Your task to perform on an android device: open chrome and create a bookmark for the current page Image 0: 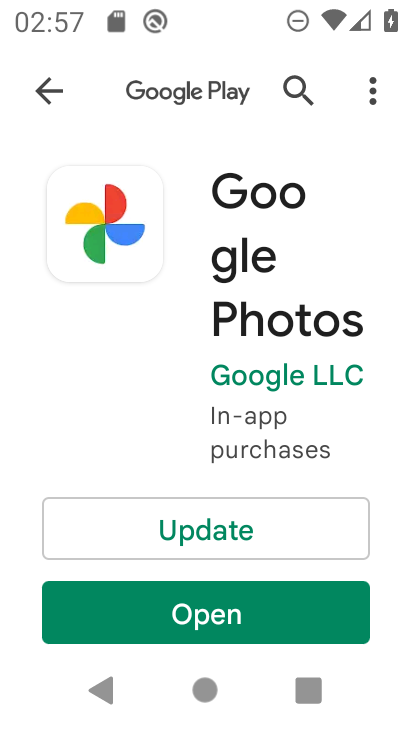
Step 0: press home button
Your task to perform on an android device: open chrome and create a bookmark for the current page Image 1: 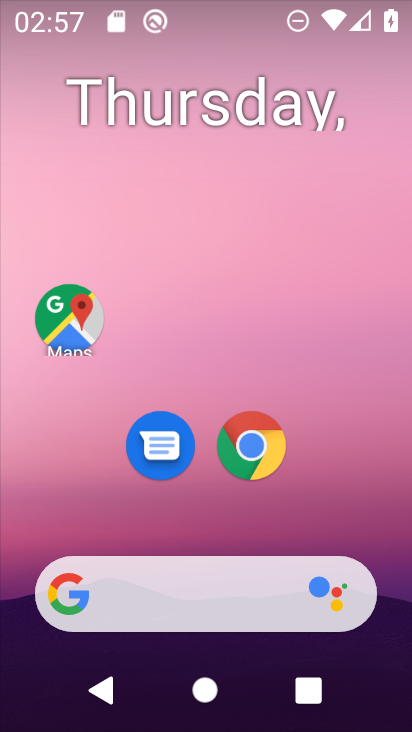
Step 1: click (252, 434)
Your task to perform on an android device: open chrome and create a bookmark for the current page Image 2: 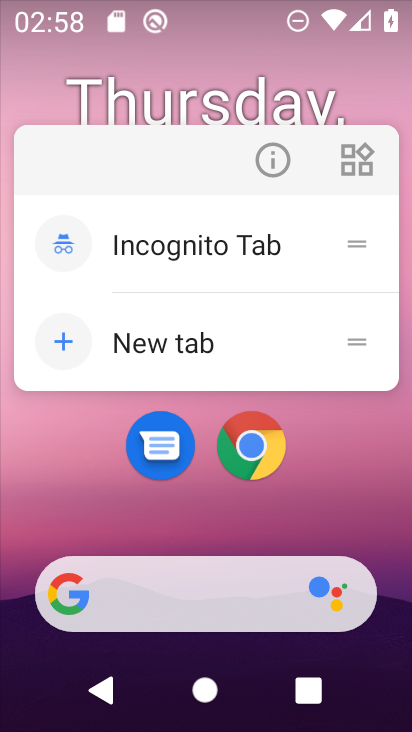
Step 2: click (252, 434)
Your task to perform on an android device: open chrome and create a bookmark for the current page Image 3: 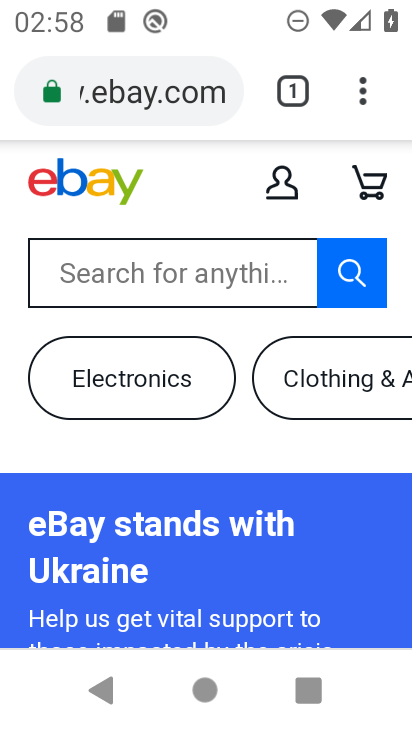
Step 3: click (358, 86)
Your task to perform on an android device: open chrome and create a bookmark for the current page Image 4: 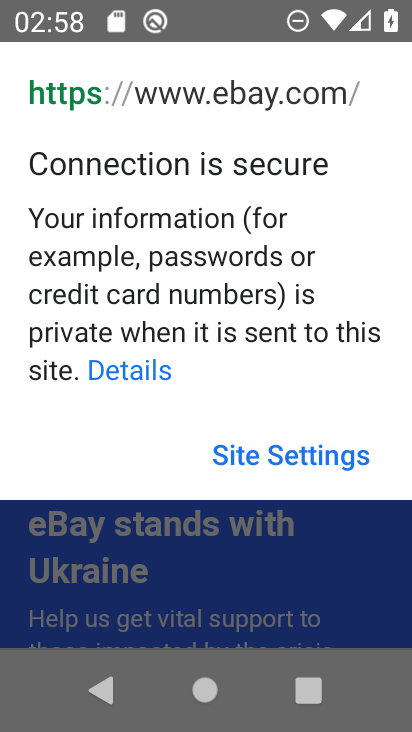
Step 4: press back button
Your task to perform on an android device: open chrome and create a bookmark for the current page Image 5: 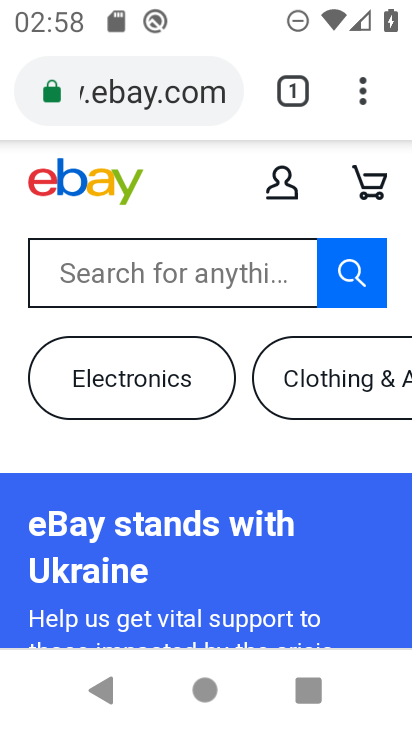
Step 5: click (360, 96)
Your task to perform on an android device: open chrome and create a bookmark for the current page Image 6: 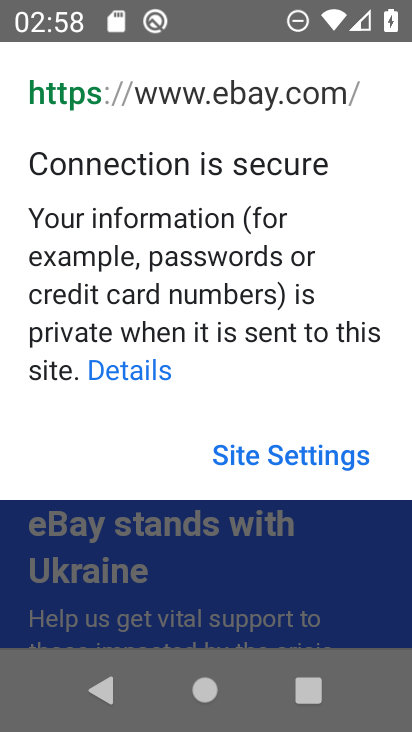
Step 6: press back button
Your task to perform on an android device: open chrome and create a bookmark for the current page Image 7: 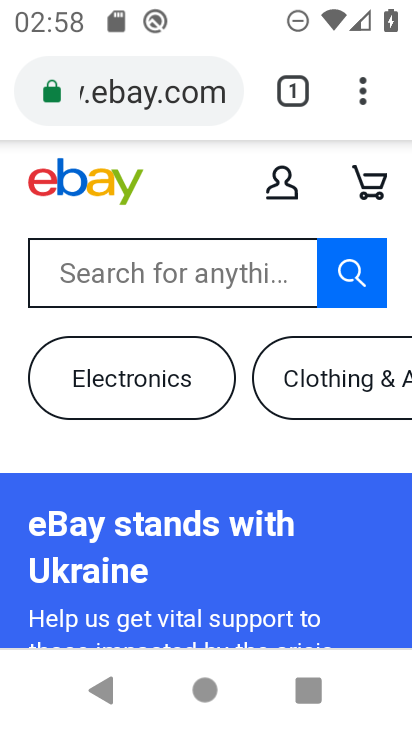
Step 7: click (371, 88)
Your task to perform on an android device: open chrome and create a bookmark for the current page Image 8: 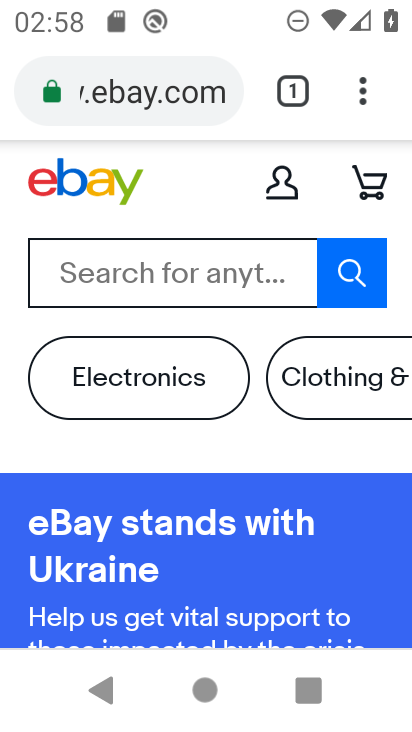
Step 8: click (366, 83)
Your task to perform on an android device: open chrome and create a bookmark for the current page Image 9: 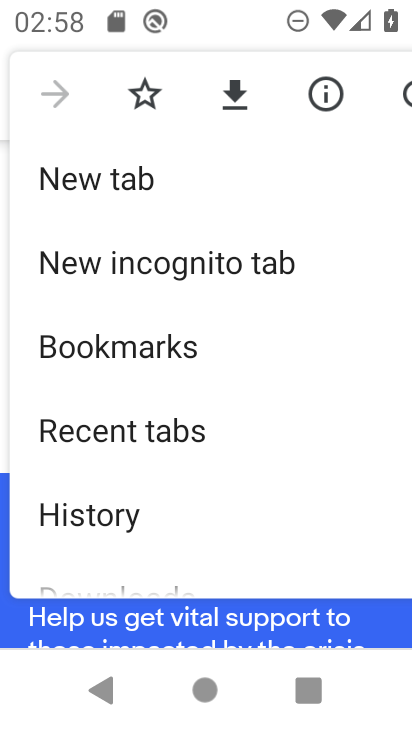
Step 9: click (136, 94)
Your task to perform on an android device: open chrome and create a bookmark for the current page Image 10: 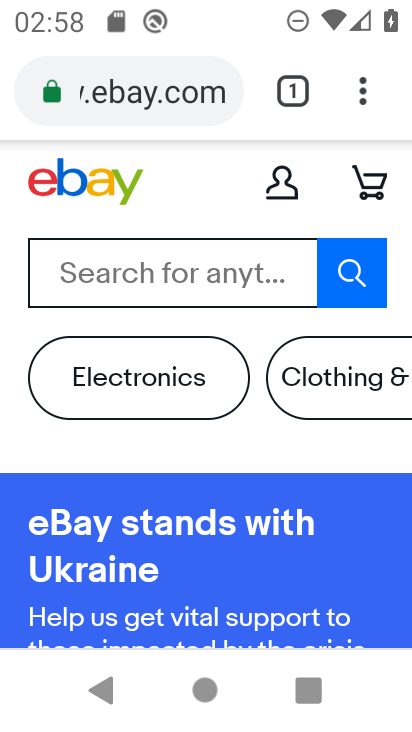
Step 10: click (365, 86)
Your task to perform on an android device: open chrome and create a bookmark for the current page Image 11: 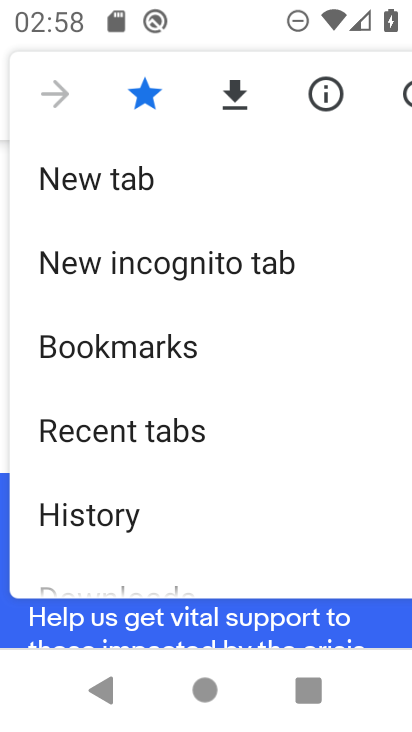
Step 11: task complete